Your task to perform on an android device: turn vacation reply on in the gmail app Image 0: 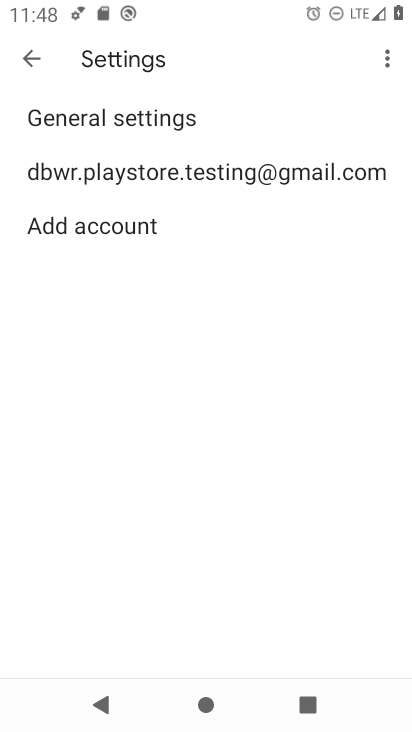
Step 0: press back button
Your task to perform on an android device: turn vacation reply on in the gmail app Image 1: 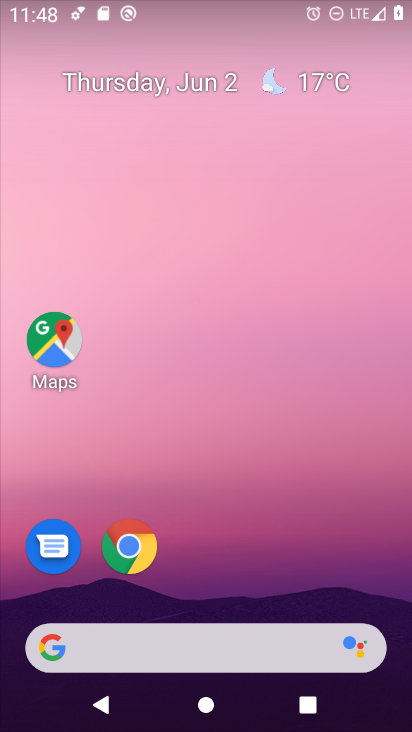
Step 1: drag from (222, 311) to (182, 5)
Your task to perform on an android device: turn vacation reply on in the gmail app Image 2: 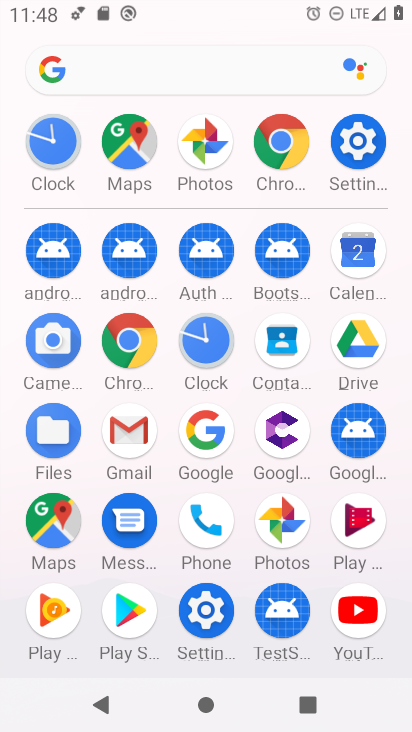
Step 2: click (127, 425)
Your task to perform on an android device: turn vacation reply on in the gmail app Image 3: 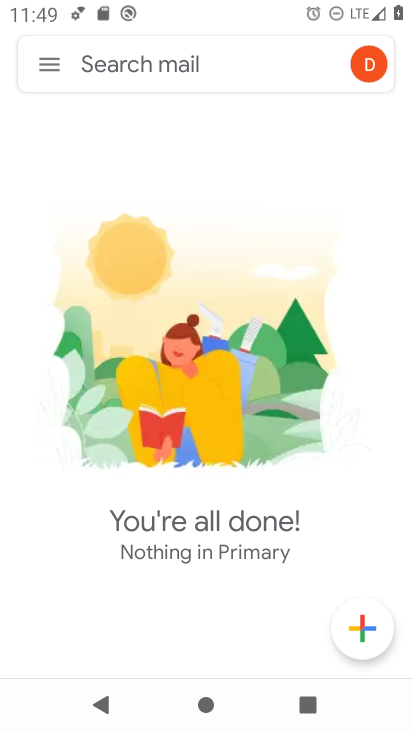
Step 3: click (50, 56)
Your task to perform on an android device: turn vacation reply on in the gmail app Image 4: 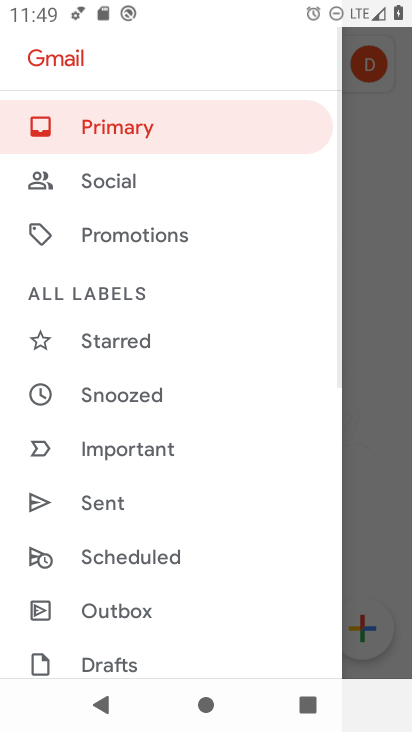
Step 4: drag from (170, 606) to (176, 151)
Your task to perform on an android device: turn vacation reply on in the gmail app Image 5: 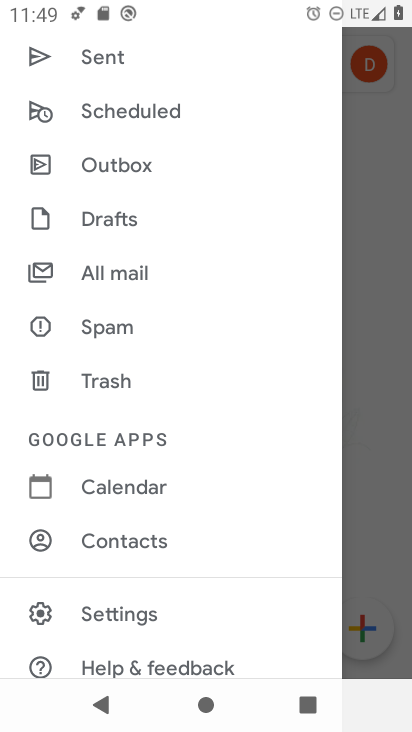
Step 5: click (218, 216)
Your task to perform on an android device: turn vacation reply on in the gmail app Image 6: 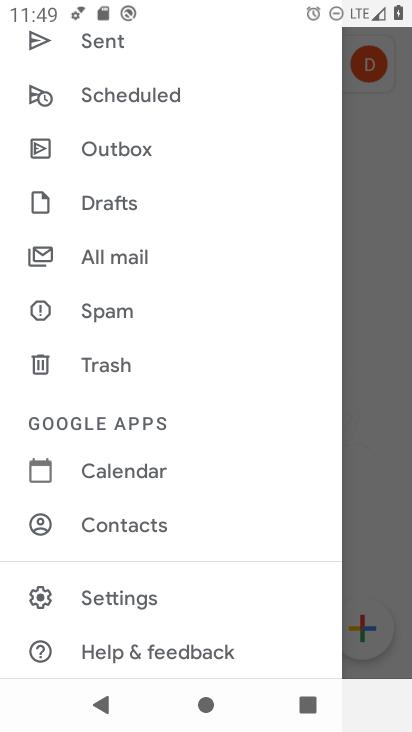
Step 6: click (132, 594)
Your task to perform on an android device: turn vacation reply on in the gmail app Image 7: 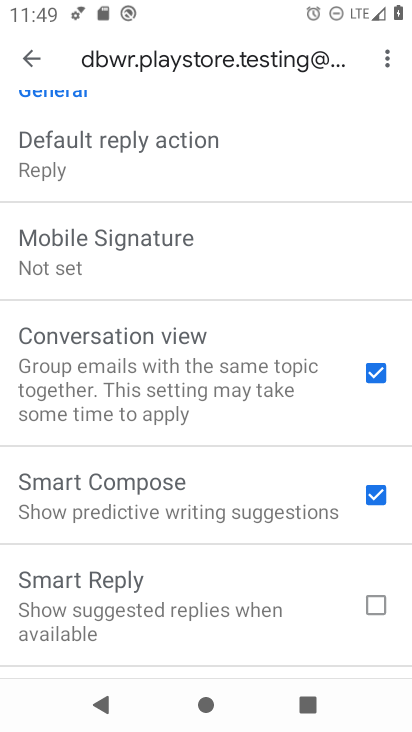
Step 7: drag from (220, 519) to (225, 77)
Your task to perform on an android device: turn vacation reply on in the gmail app Image 8: 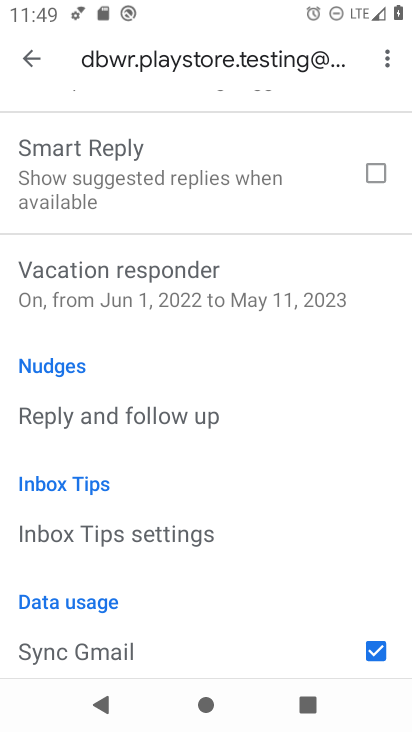
Step 8: click (182, 296)
Your task to perform on an android device: turn vacation reply on in the gmail app Image 9: 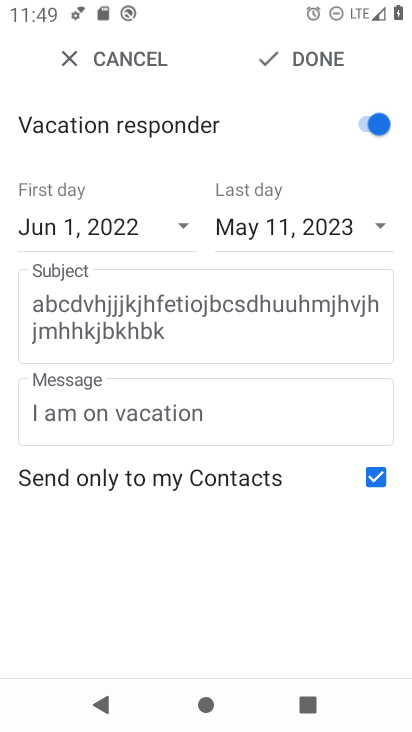
Step 9: click (281, 54)
Your task to perform on an android device: turn vacation reply on in the gmail app Image 10: 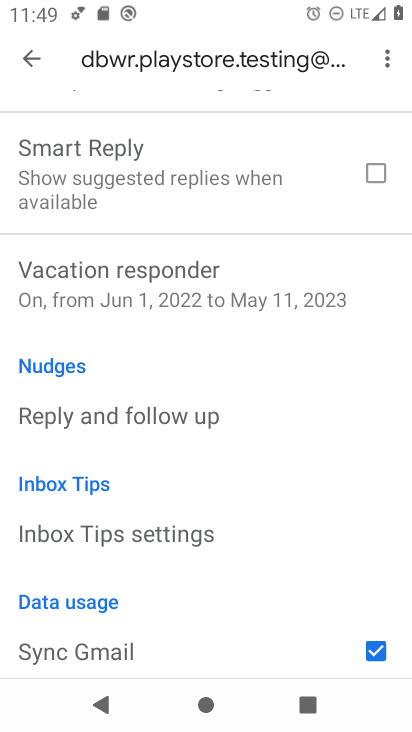
Step 10: task complete